Your task to perform on an android device: make emails show in primary in the gmail app Image 0: 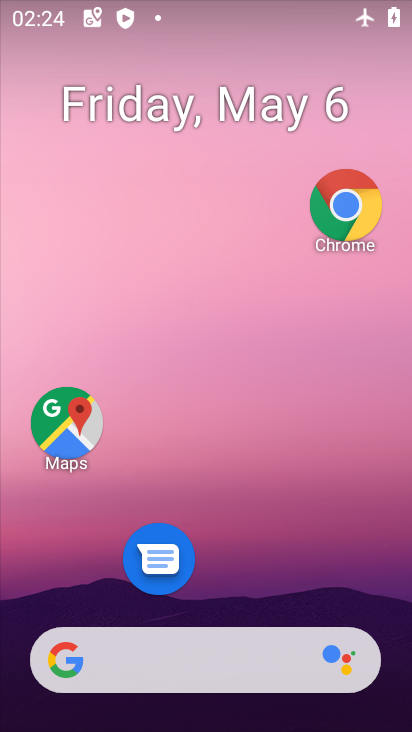
Step 0: drag from (146, 675) to (357, 104)
Your task to perform on an android device: make emails show in primary in the gmail app Image 1: 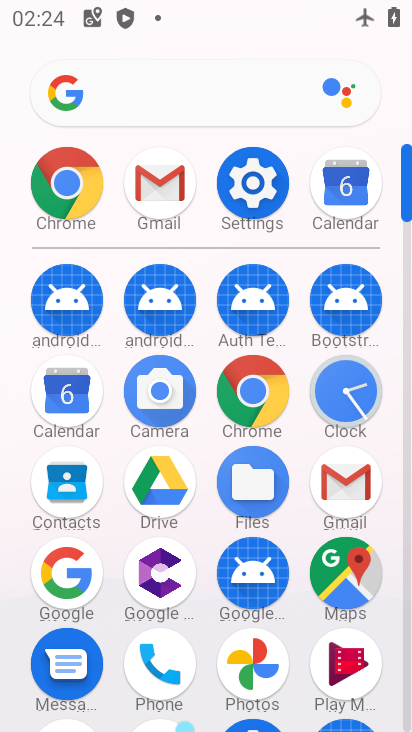
Step 1: click (162, 207)
Your task to perform on an android device: make emails show in primary in the gmail app Image 2: 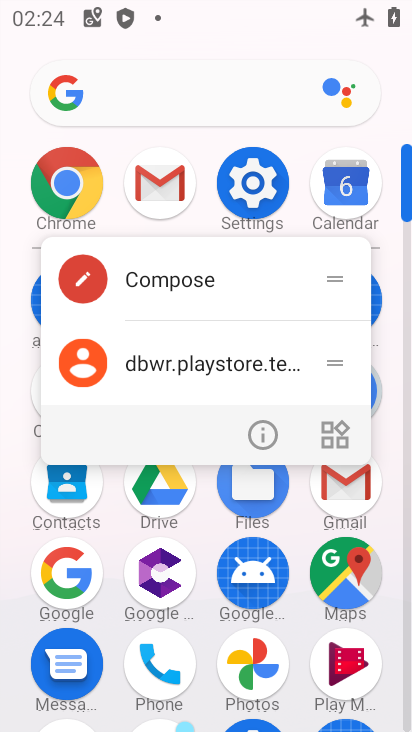
Step 2: click (168, 186)
Your task to perform on an android device: make emails show in primary in the gmail app Image 3: 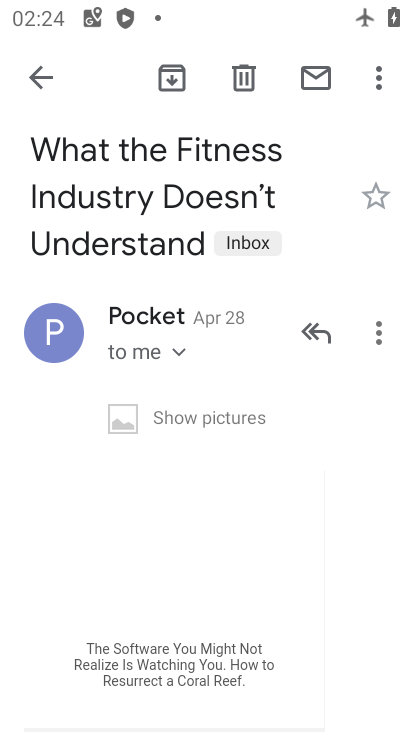
Step 3: click (45, 80)
Your task to perform on an android device: make emails show in primary in the gmail app Image 4: 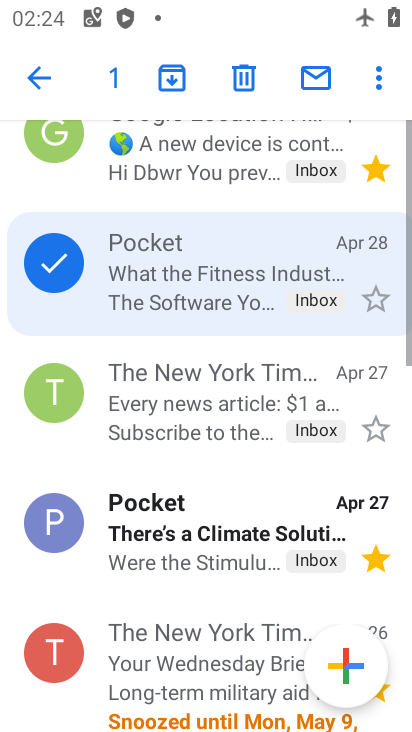
Step 4: click (45, 80)
Your task to perform on an android device: make emails show in primary in the gmail app Image 5: 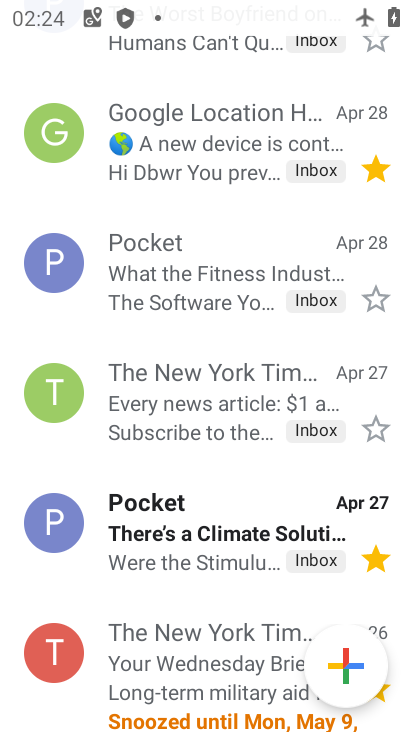
Step 5: drag from (218, 86) to (222, 609)
Your task to perform on an android device: make emails show in primary in the gmail app Image 6: 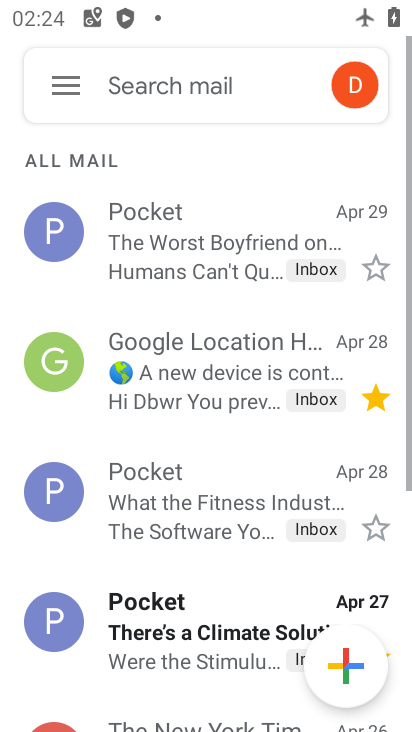
Step 6: click (67, 84)
Your task to perform on an android device: make emails show in primary in the gmail app Image 7: 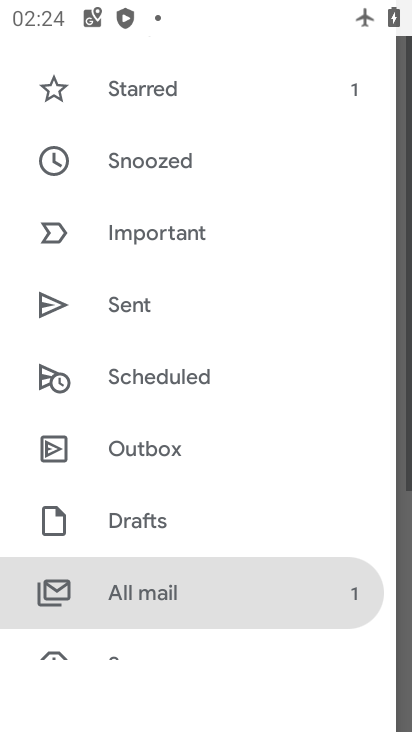
Step 7: drag from (254, 548) to (358, 138)
Your task to perform on an android device: make emails show in primary in the gmail app Image 8: 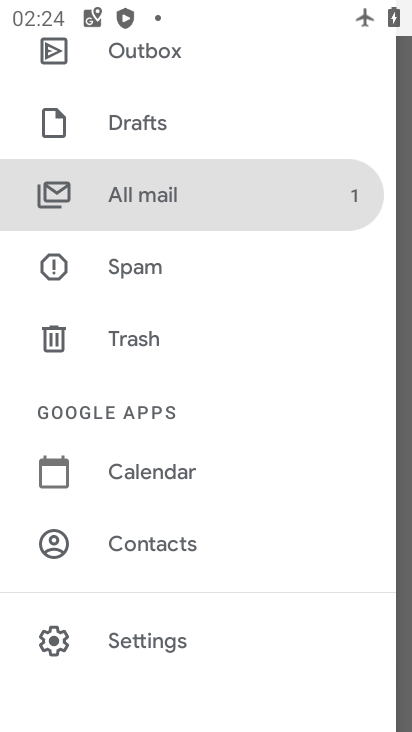
Step 8: click (175, 635)
Your task to perform on an android device: make emails show in primary in the gmail app Image 9: 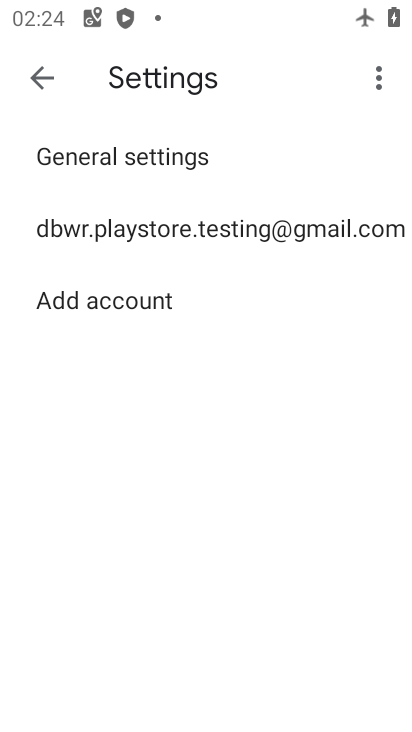
Step 9: click (267, 228)
Your task to perform on an android device: make emails show in primary in the gmail app Image 10: 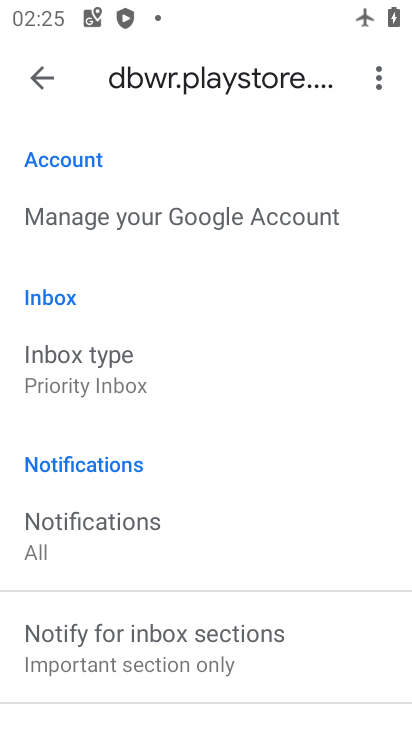
Step 10: task complete